Your task to perform on an android device: check battery use Image 0: 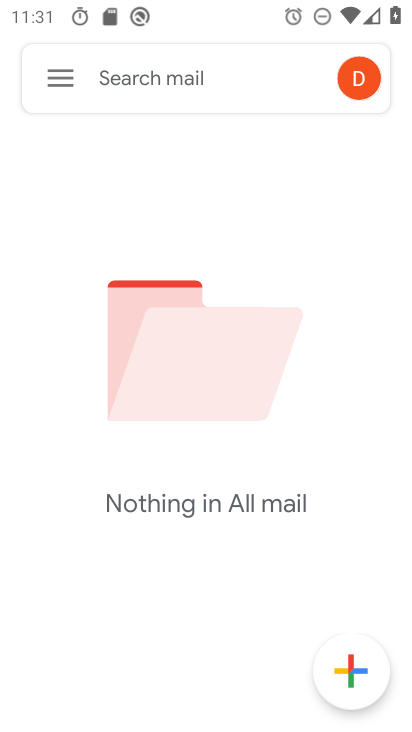
Step 0: press home button
Your task to perform on an android device: check battery use Image 1: 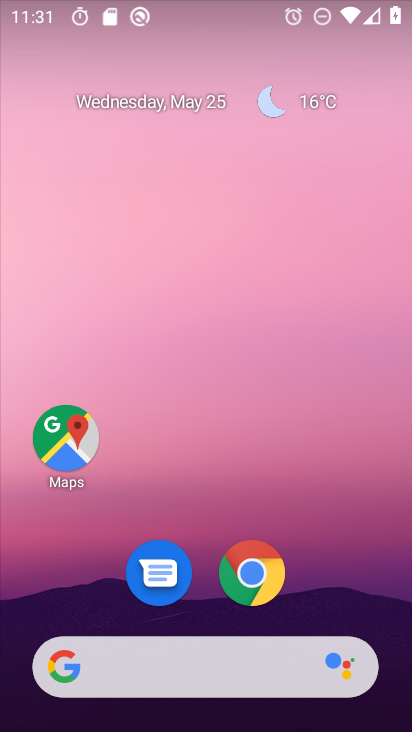
Step 1: drag from (352, 627) to (338, 1)
Your task to perform on an android device: check battery use Image 2: 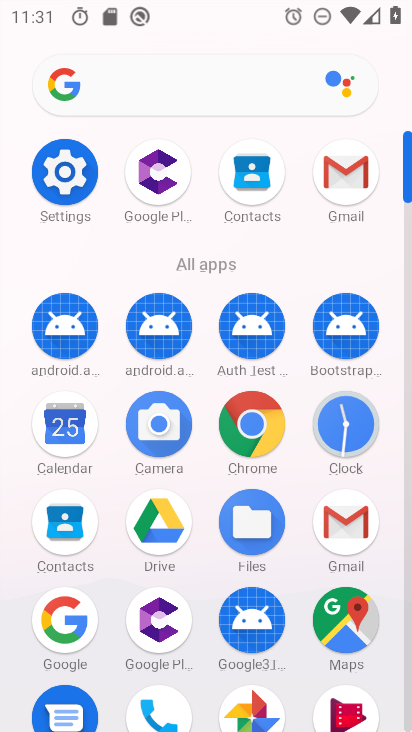
Step 2: click (66, 176)
Your task to perform on an android device: check battery use Image 3: 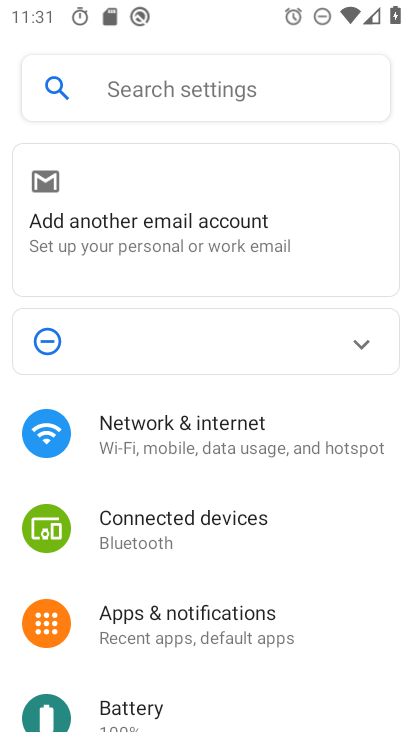
Step 3: drag from (359, 631) to (323, 257)
Your task to perform on an android device: check battery use Image 4: 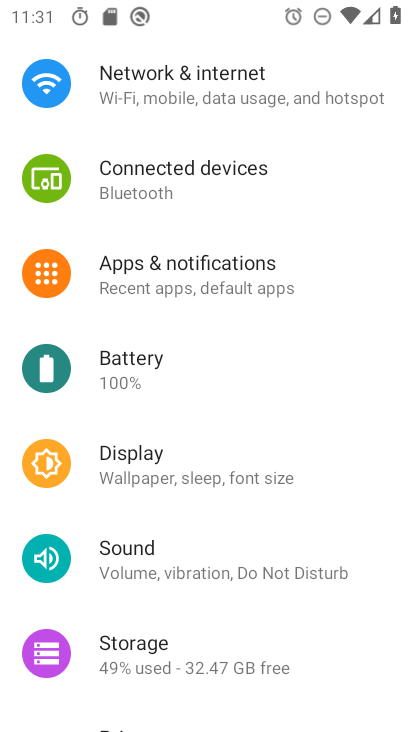
Step 4: click (111, 367)
Your task to perform on an android device: check battery use Image 5: 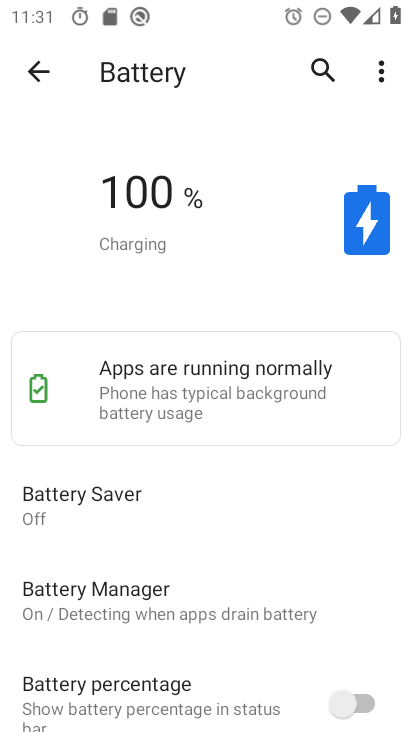
Step 5: click (386, 73)
Your task to perform on an android device: check battery use Image 6: 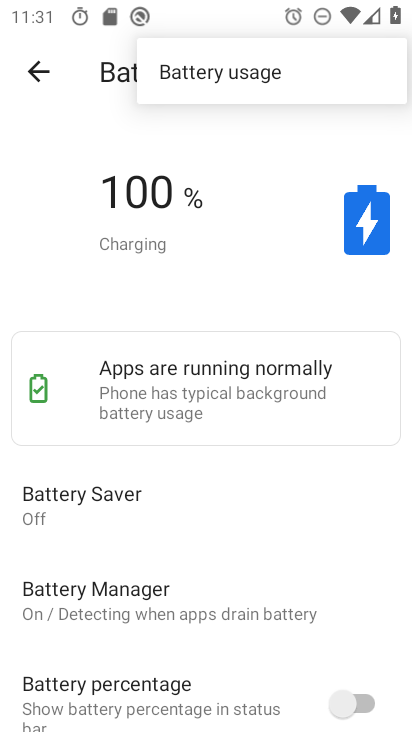
Step 6: click (254, 74)
Your task to perform on an android device: check battery use Image 7: 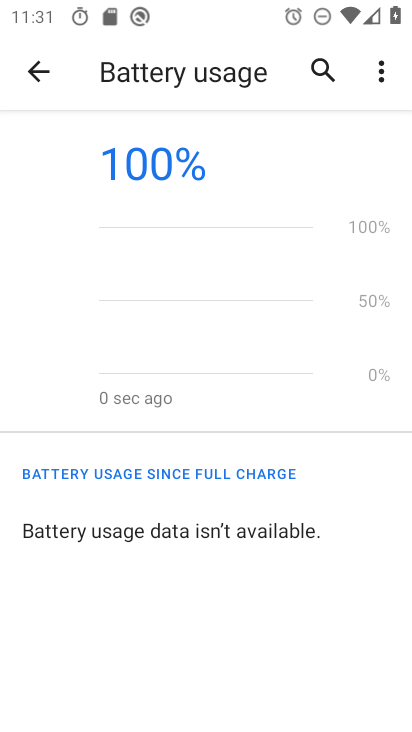
Step 7: task complete